Your task to perform on an android device: Go to privacy settings Image 0: 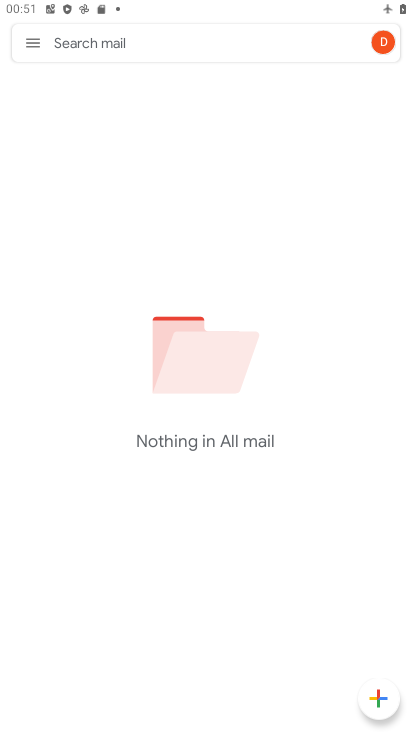
Step 0: press home button
Your task to perform on an android device: Go to privacy settings Image 1: 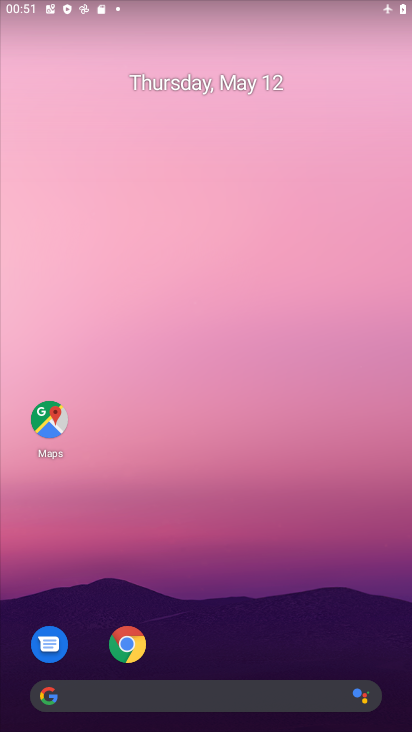
Step 1: drag from (268, 597) to (210, 39)
Your task to perform on an android device: Go to privacy settings Image 2: 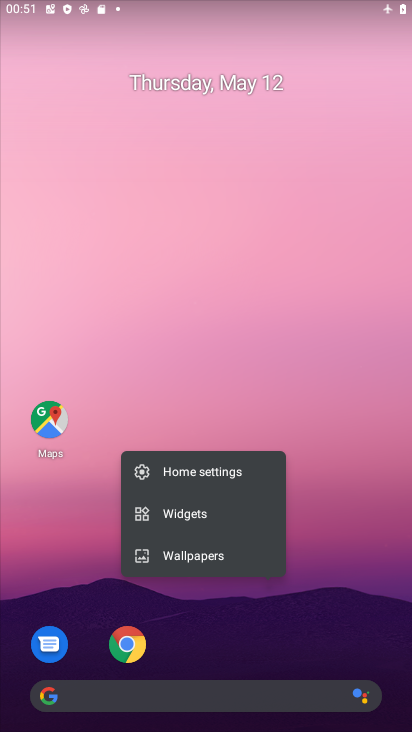
Step 2: click (316, 529)
Your task to perform on an android device: Go to privacy settings Image 3: 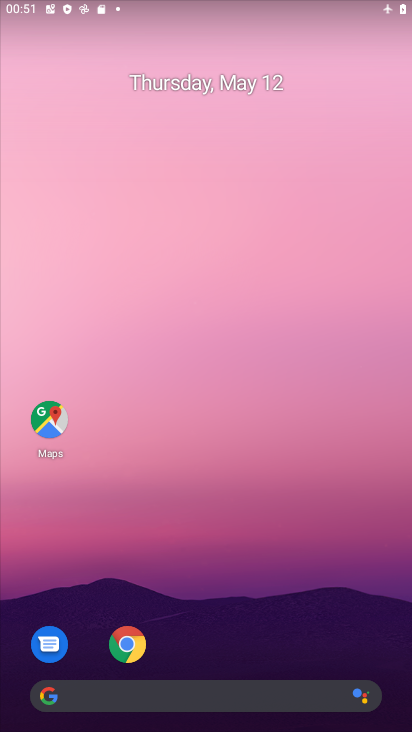
Step 3: drag from (263, 635) to (285, 104)
Your task to perform on an android device: Go to privacy settings Image 4: 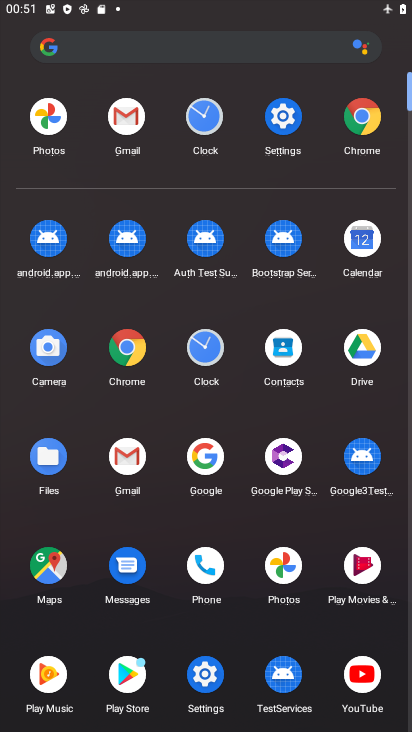
Step 4: click (300, 117)
Your task to perform on an android device: Go to privacy settings Image 5: 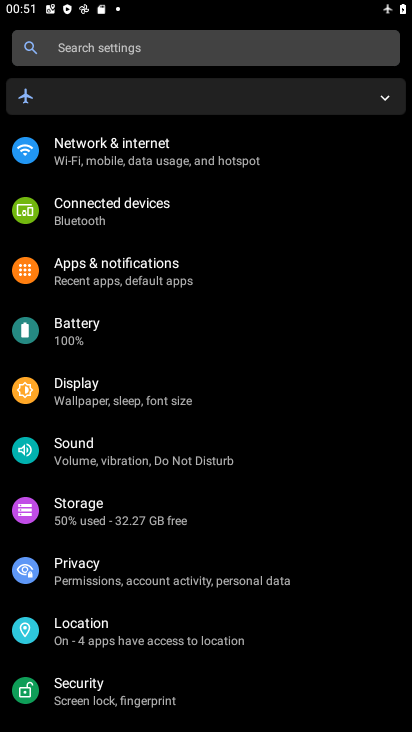
Step 5: click (135, 567)
Your task to perform on an android device: Go to privacy settings Image 6: 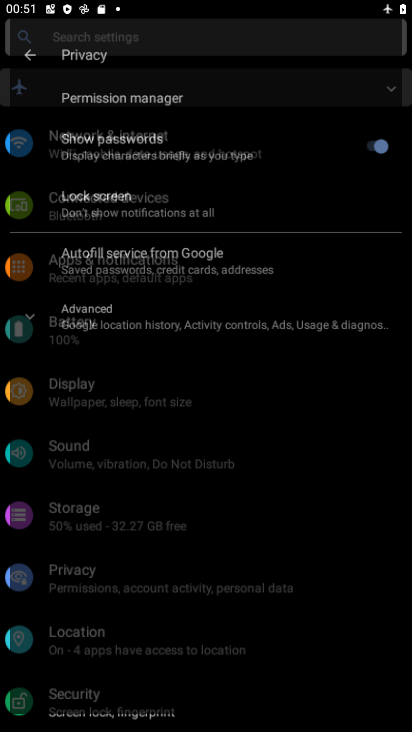
Step 6: task complete